Your task to perform on an android device: turn off airplane mode Image 0: 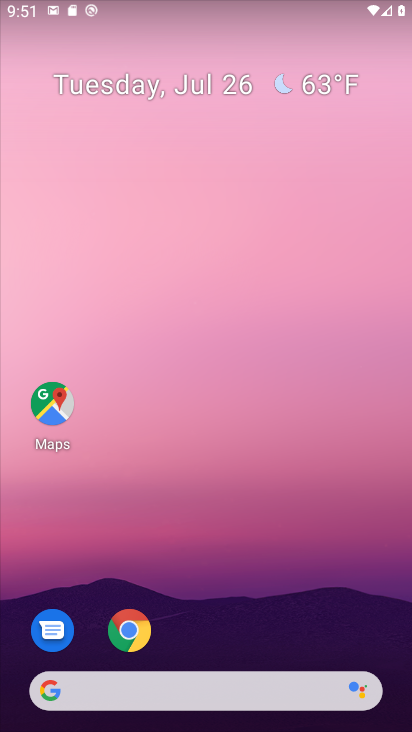
Step 0: drag from (211, 5) to (238, 651)
Your task to perform on an android device: turn off airplane mode Image 1: 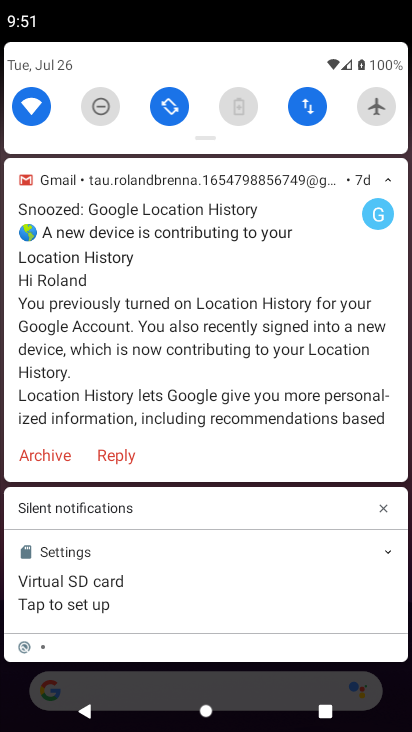
Step 1: click (381, 506)
Your task to perform on an android device: turn off airplane mode Image 2: 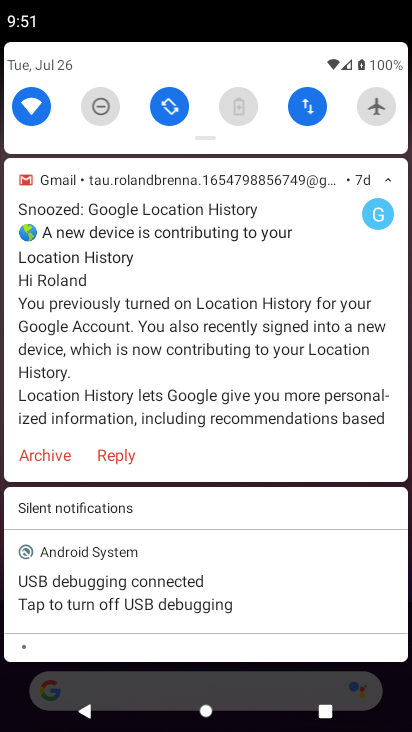
Step 2: task complete